Your task to perform on an android device: See recent photos Image 0: 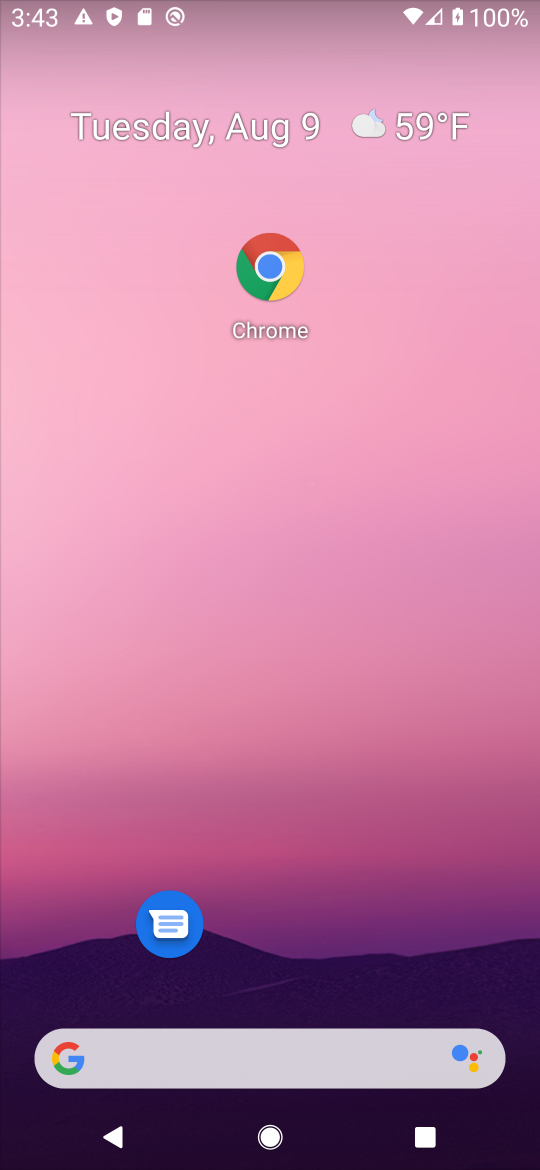
Step 0: press back button
Your task to perform on an android device: See recent photos Image 1: 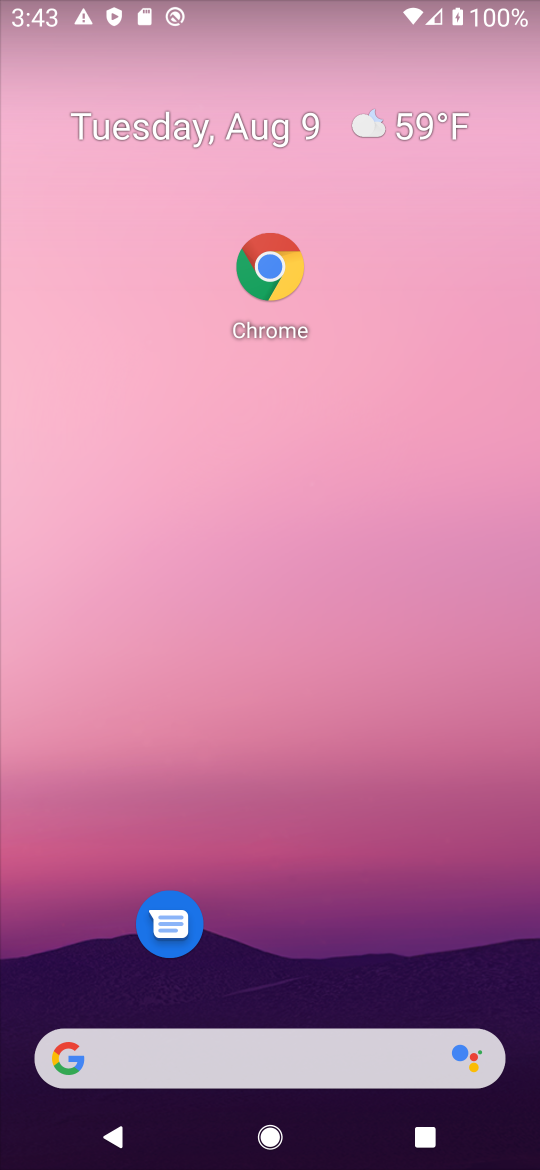
Step 1: click (219, 342)
Your task to perform on an android device: See recent photos Image 2: 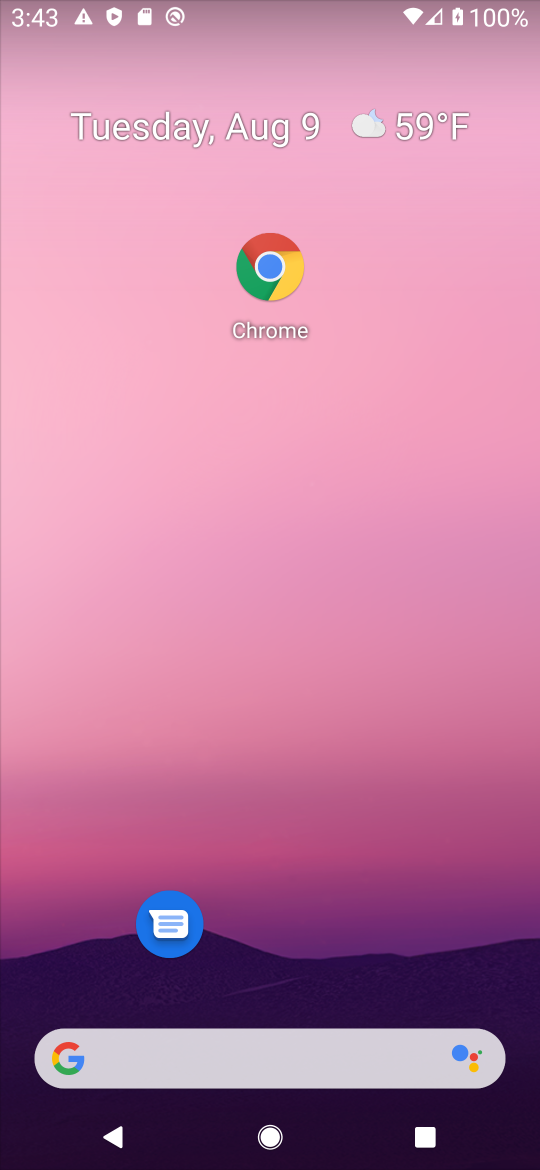
Step 2: drag from (370, 1024) to (260, 293)
Your task to perform on an android device: See recent photos Image 3: 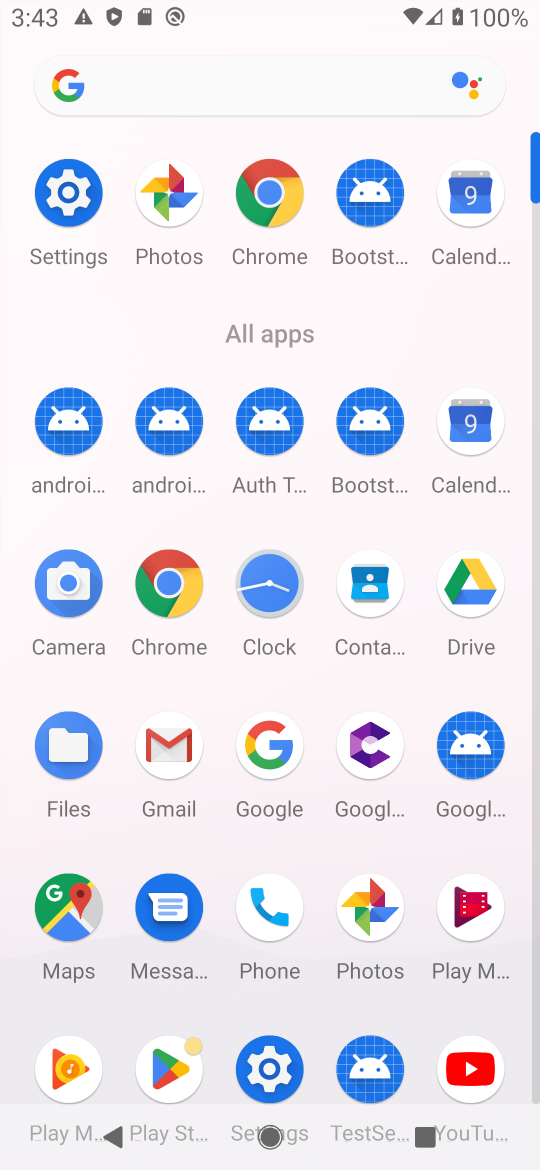
Step 3: click (365, 908)
Your task to perform on an android device: See recent photos Image 4: 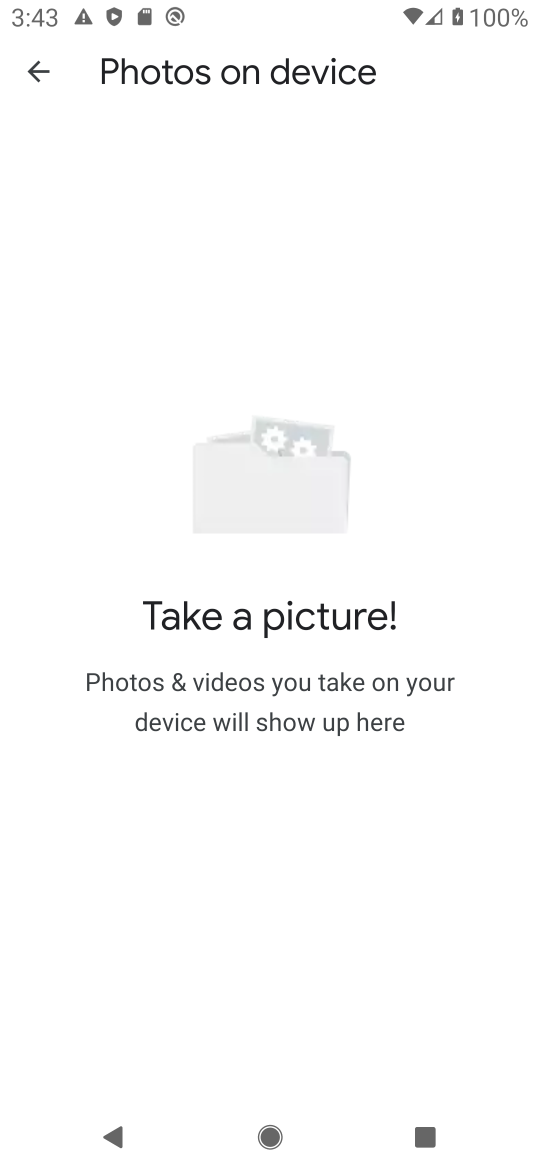
Step 4: drag from (285, 913) to (241, 333)
Your task to perform on an android device: See recent photos Image 5: 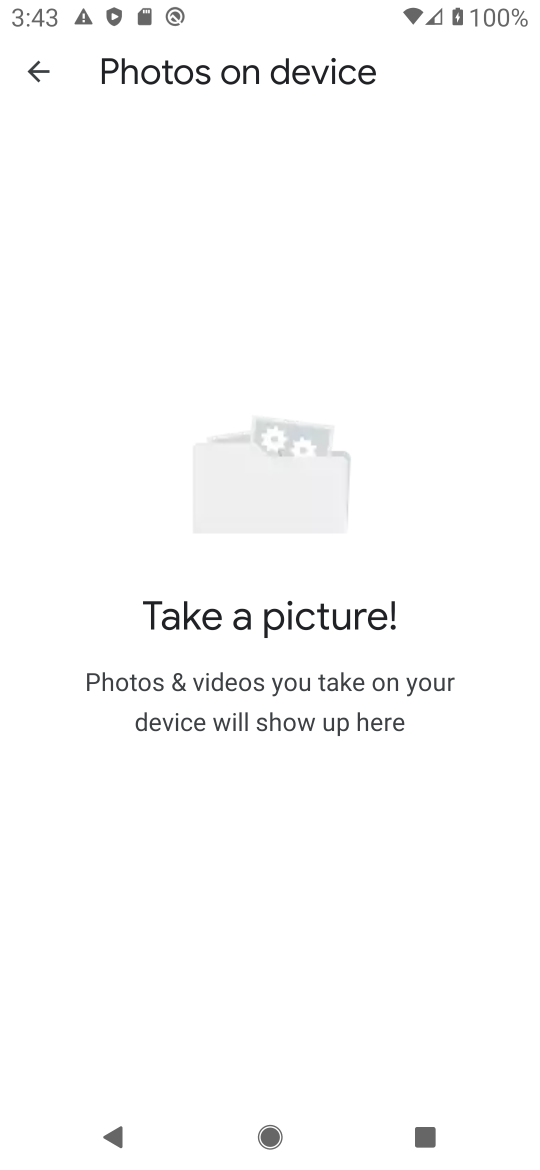
Step 5: click (277, 286)
Your task to perform on an android device: See recent photos Image 6: 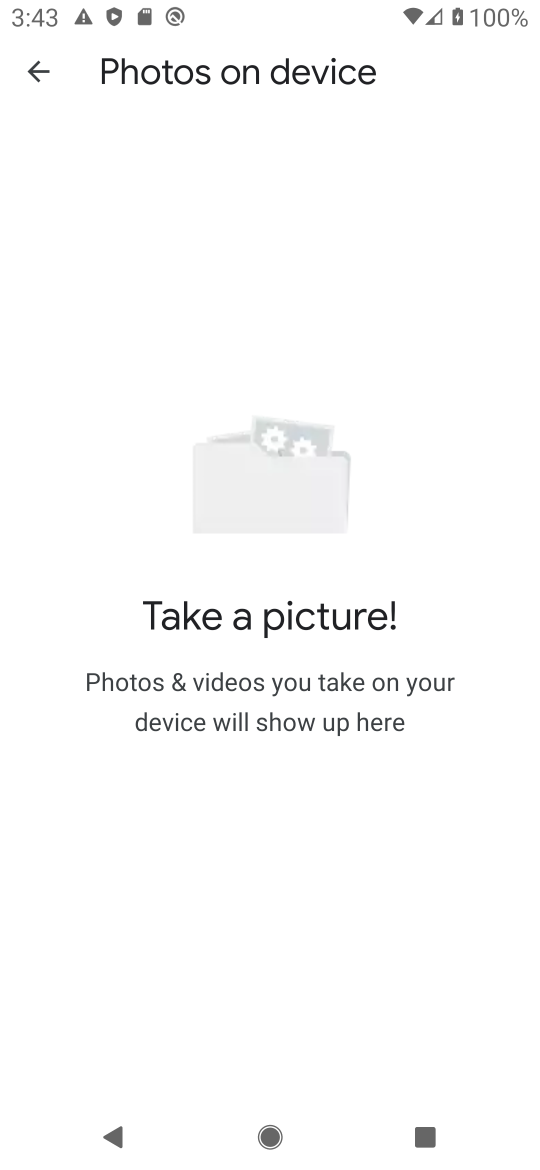
Step 6: drag from (293, 721) to (260, 181)
Your task to perform on an android device: See recent photos Image 7: 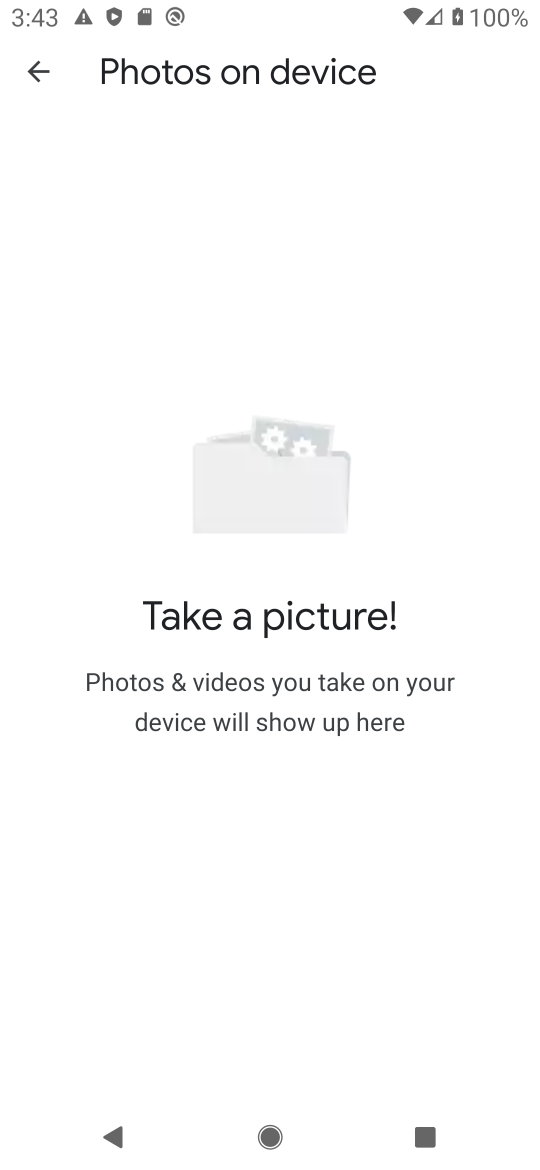
Step 7: click (31, 63)
Your task to perform on an android device: See recent photos Image 8: 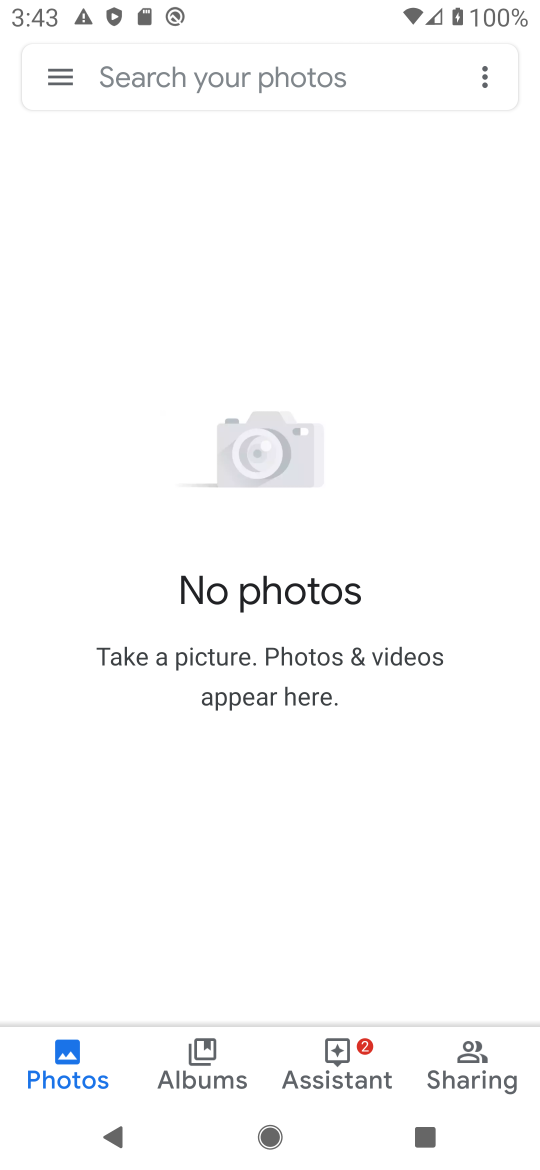
Step 8: task complete